Your task to perform on an android device: Do I have any events tomorrow? Image 0: 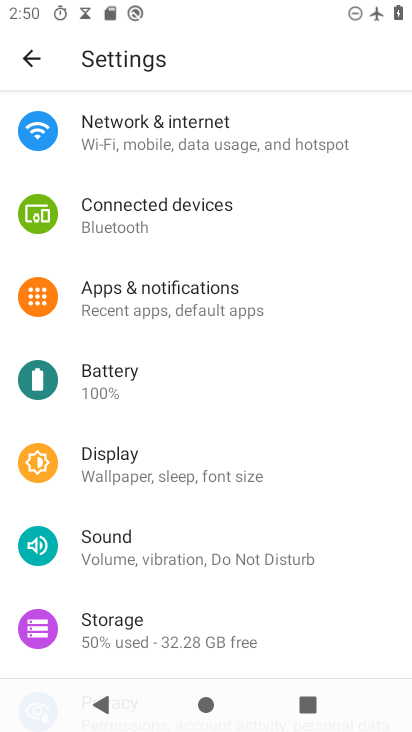
Step 0: press home button
Your task to perform on an android device: Do I have any events tomorrow? Image 1: 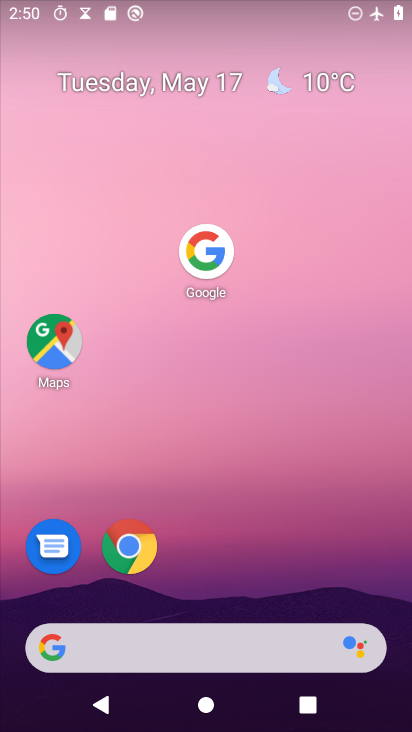
Step 1: drag from (140, 651) to (284, 110)
Your task to perform on an android device: Do I have any events tomorrow? Image 2: 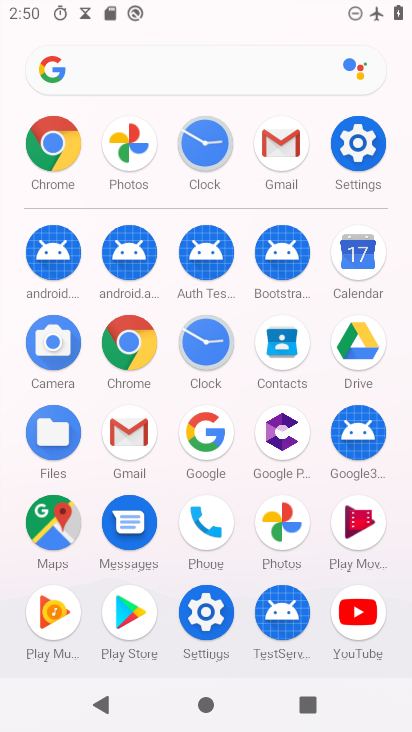
Step 2: click (351, 259)
Your task to perform on an android device: Do I have any events tomorrow? Image 3: 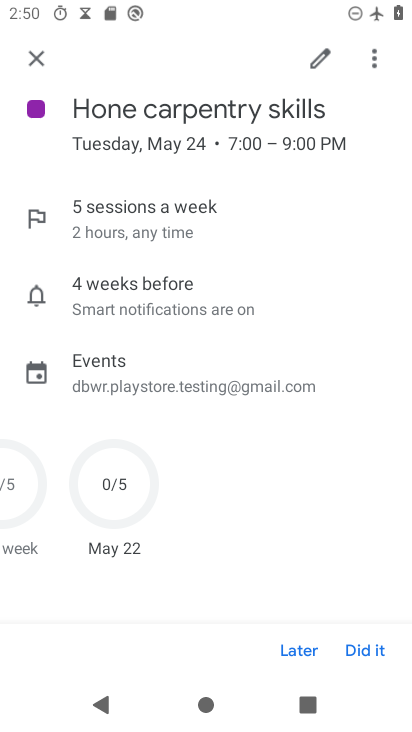
Step 3: click (38, 47)
Your task to perform on an android device: Do I have any events tomorrow? Image 4: 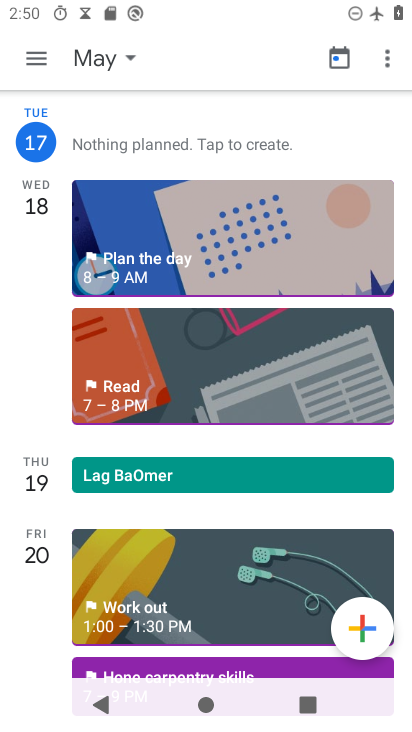
Step 4: click (101, 52)
Your task to perform on an android device: Do I have any events tomorrow? Image 5: 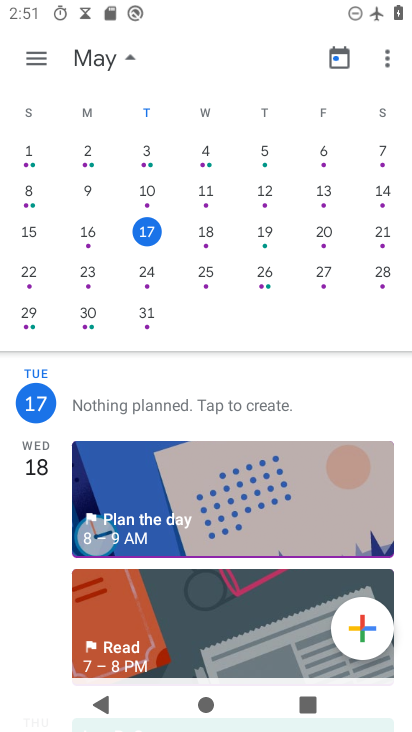
Step 5: click (209, 238)
Your task to perform on an android device: Do I have any events tomorrow? Image 6: 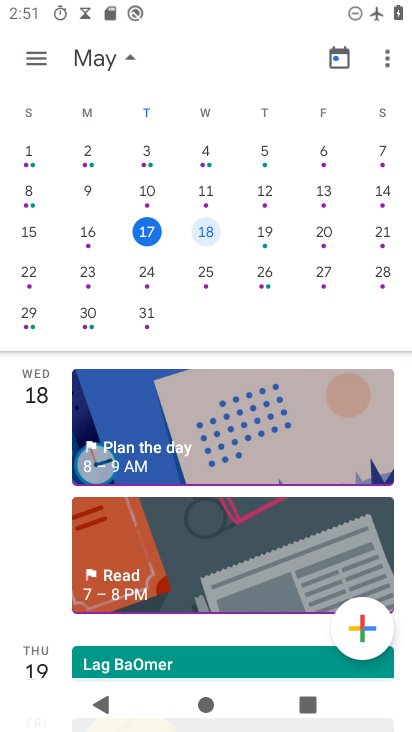
Step 6: click (39, 56)
Your task to perform on an android device: Do I have any events tomorrow? Image 7: 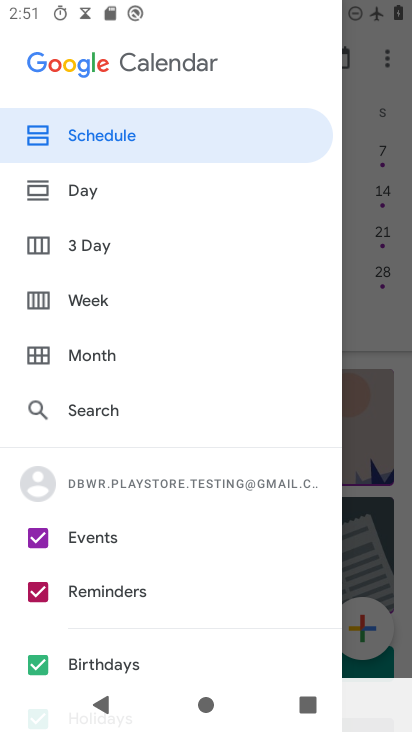
Step 7: click (114, 136)
Your task to perform on an android device: Do I have any events tomorrow? Image 8: 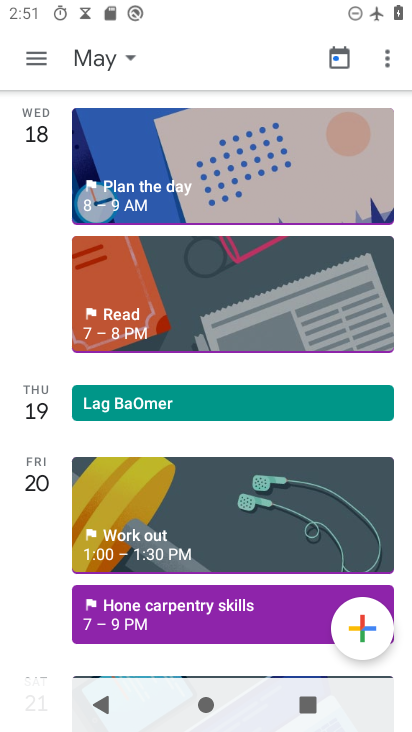
Step 8: task complete